Your task to perform on an android device: toggle airplane mode Image 0: 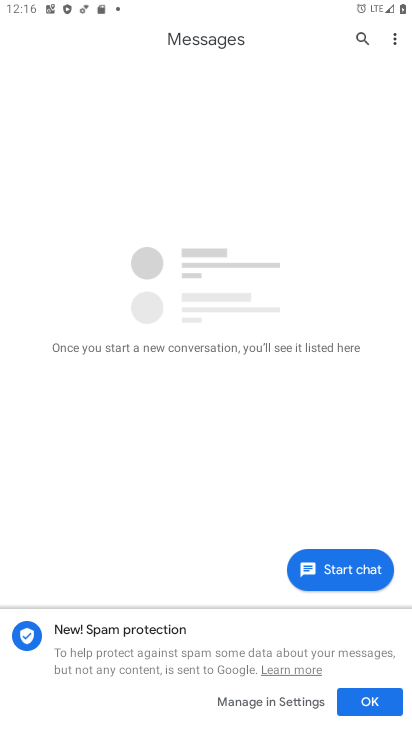
Step 0: press home button
Your task to perform on an android device: toggle airplane mode Image 1: 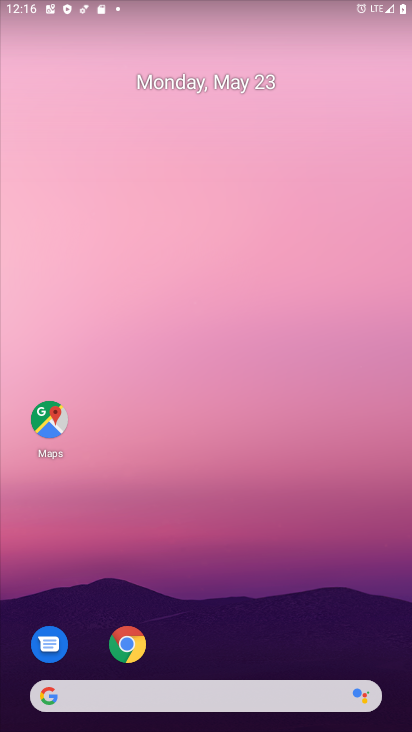
Step 1: drag from (185, 7) to (199, 571)
Your task to perform on an android device: toggle airplane mode Image 2: 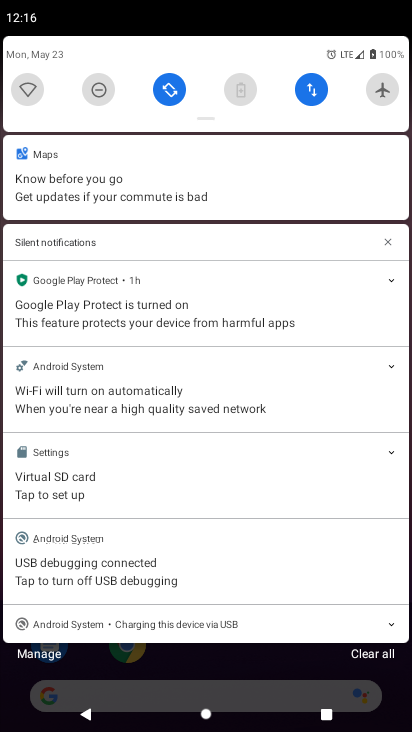
Step 2: click (382, 89)
Your task to perform on an android device: toggle airplane mode Image 3: 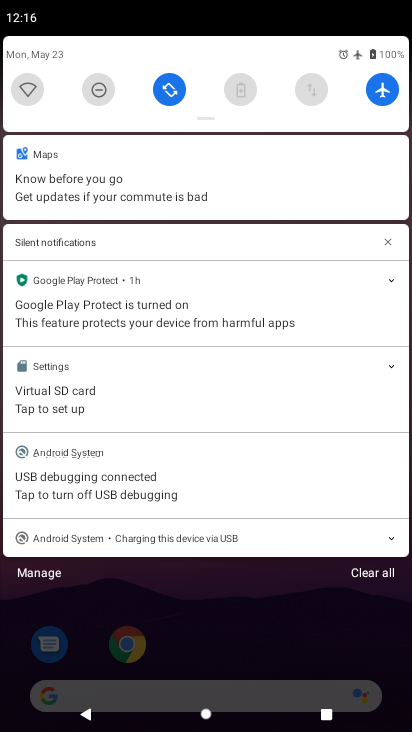
Step 3: task complete